Your task to perform on an android device: Open ESPN.com Image 0: 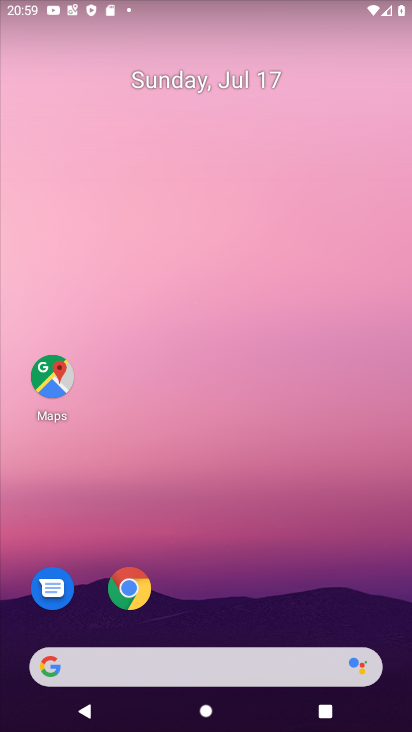
Step 0: press home button
Your task to perform on an android device: Open ESPN.com Image 1: 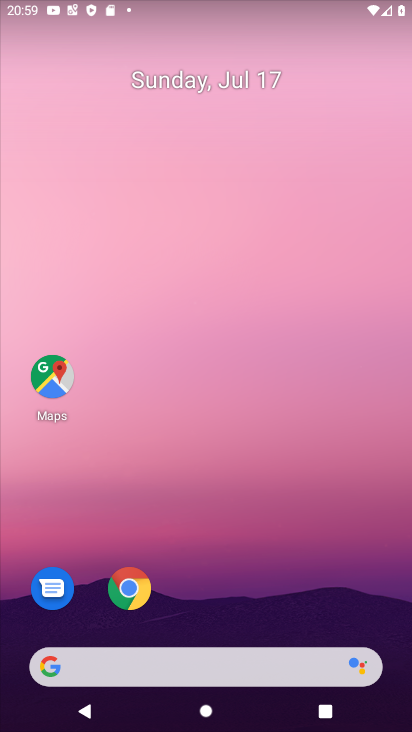
Step 1: drag from (220, 554) to (225, 35)
Your task to perform on an android device: Open ESPN.com Image 2: 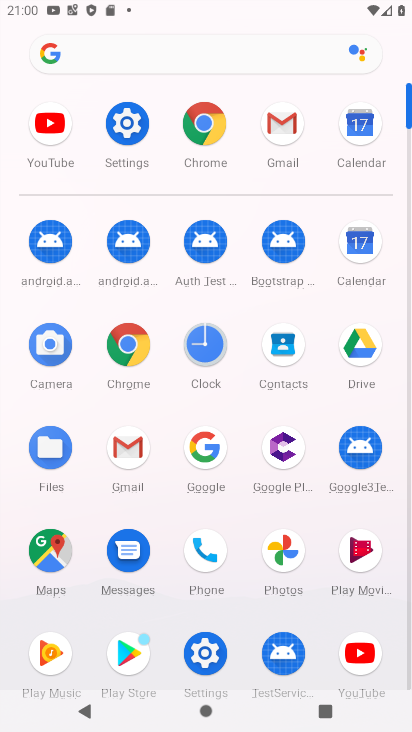
Step 2: click (217, 124)
Your task to perform on an android device: Open ESPN.com Image 3: 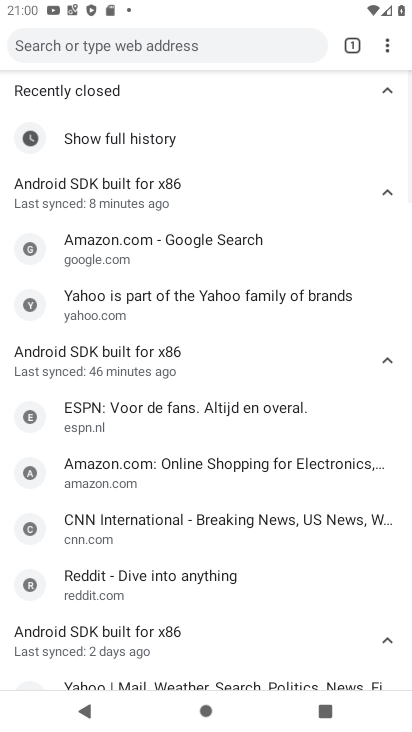
Step 3: drag from (382, 50) to (250, 53)
Your task to perform on an android device: Open ESPN.com Image 4: 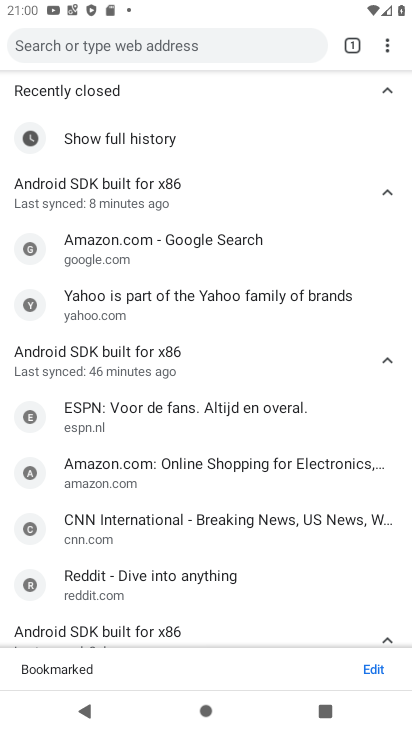
Step 4: drag from (389, 45) to (243, 91)
Your task to perform on an android device: Open ESPN.com Image 5: 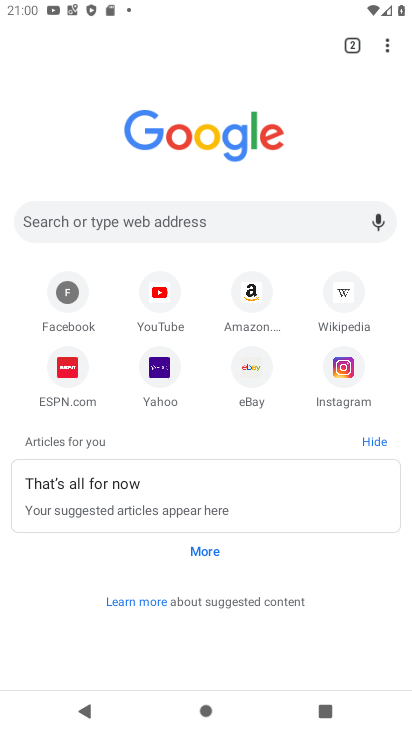
Step 5: click (82, 385)
Your task to perform on an android device: Open ESPN.com Image 6: 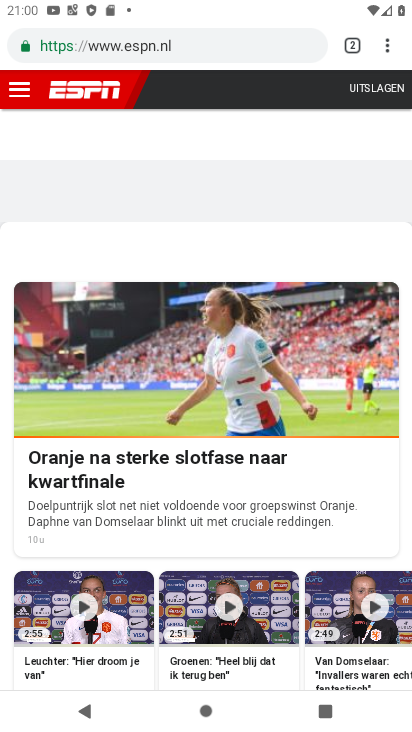
Step 6: task complete